Your task to perform on an android device: Go to internet settings Image 0: 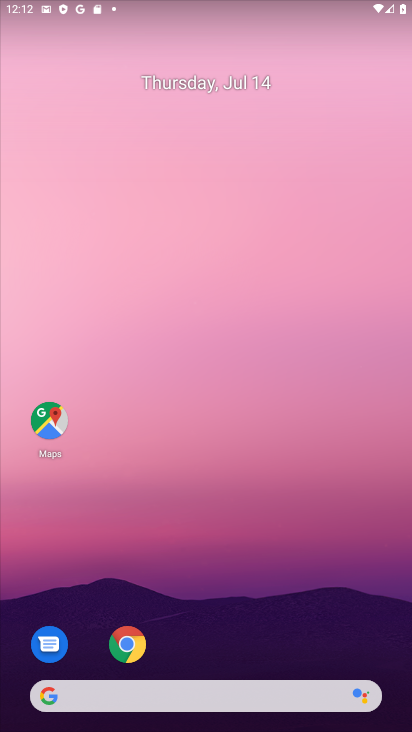
Step 0: drag from (320, 612) to (274, 74)
Your task to perform on an android device: Go to internet settings Image 1: 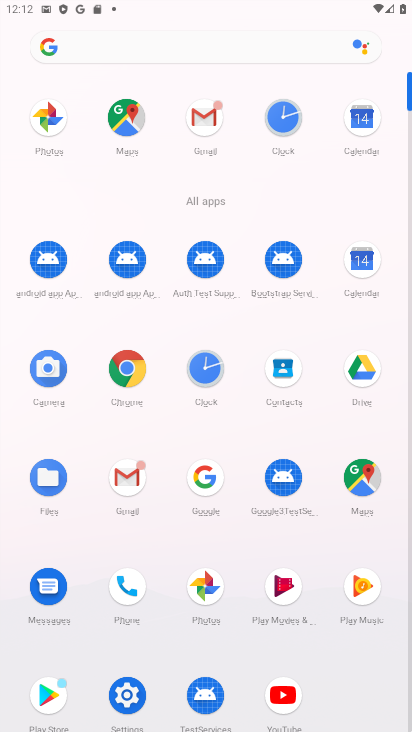
Step 1: click (125, 695)
Your task to perform on an android device: Go to internet settings Image 2: 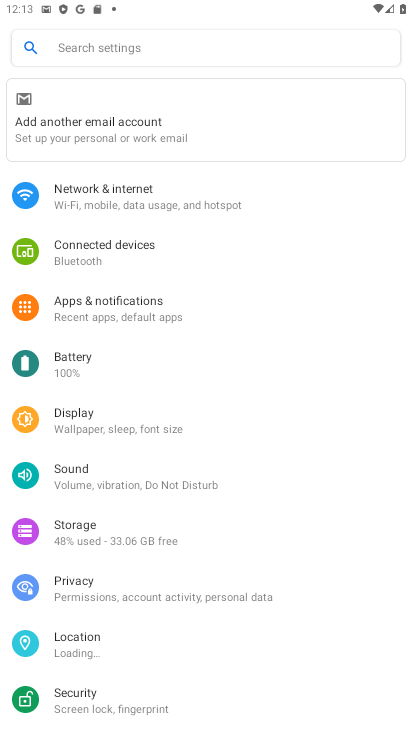
Step 2: click (196, 204)
Your task to perform on an android device: Go to internet settings Image 3: 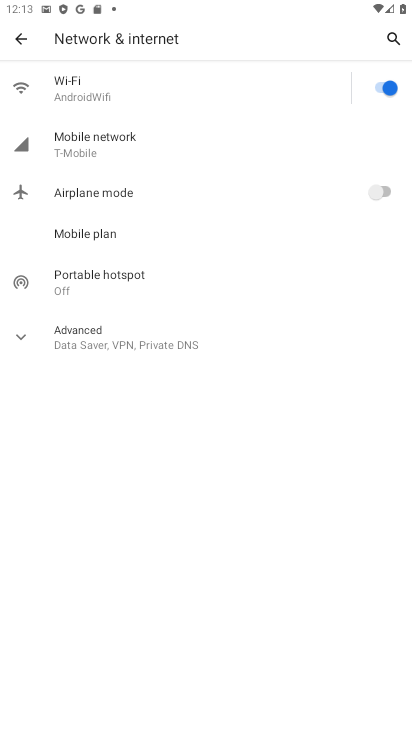
Step 3: click (71, 134)
Your task to perform on an android device: Go to internet settings Image 4: 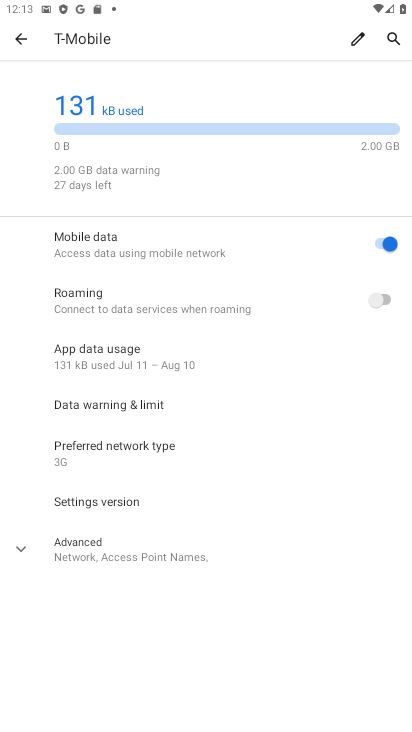
Step 4: task complete